Your task to perform on an android device: Search for vegetarian restaurants on Maps Image 0: 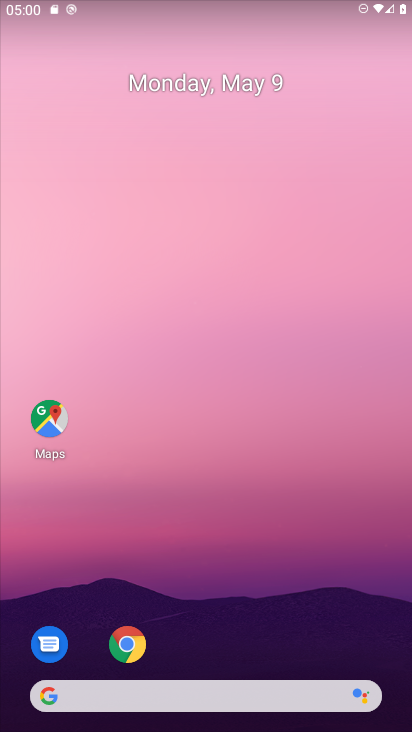
Step 0: click (49, 416)
Your task to perform on an android device: Search for vegetarian restaurants on Maps Image 1: 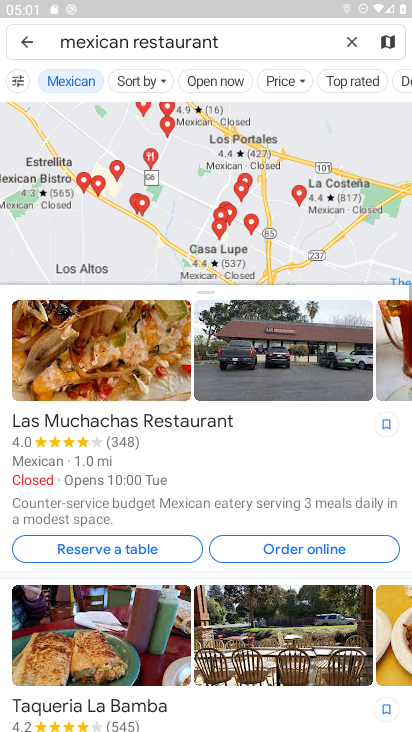
Step 1: click (351, 43)
Your task to perform on an android device: Search for vegetarian restaurants on Maps Image 2: 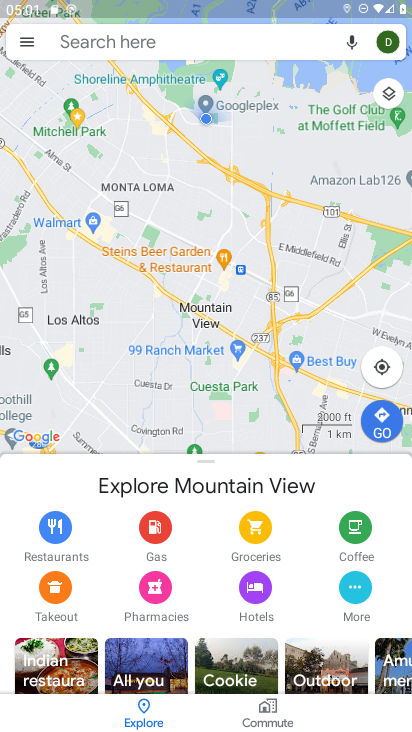
Step 2: click (277, 38)
Your task to perform on an android device: Search for vegetarian restaurants on Maps Image 3: 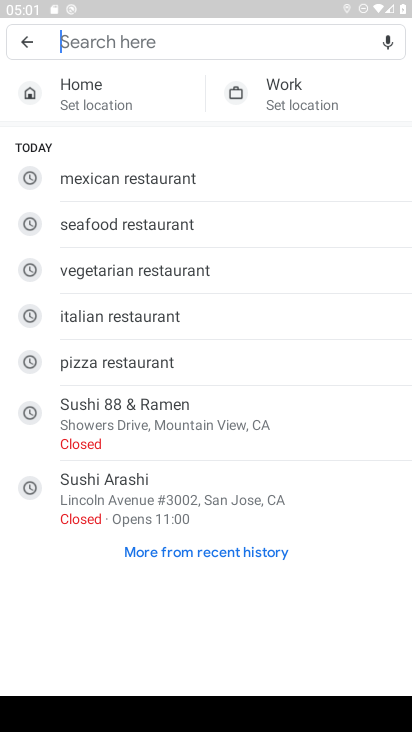
Step 3: type "vegetarian restaurants"
Your task to perform on an android device: Search for vegetarian restaurants on Maps Image 4: 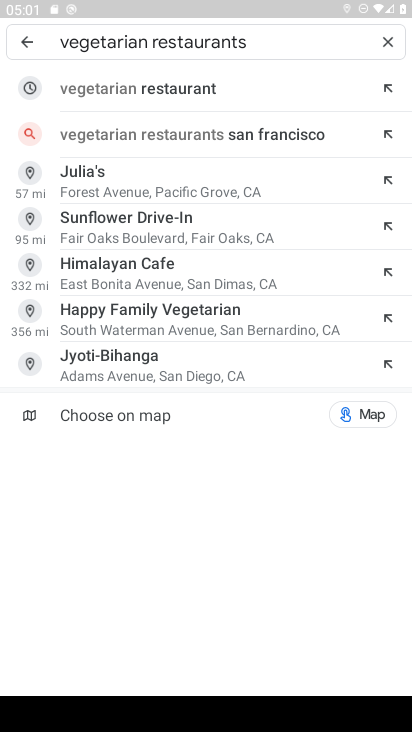
Step 4: click (207, 89)
Your task to perform on an android device: Search for vegetarian restaurants on Maps Image 5: 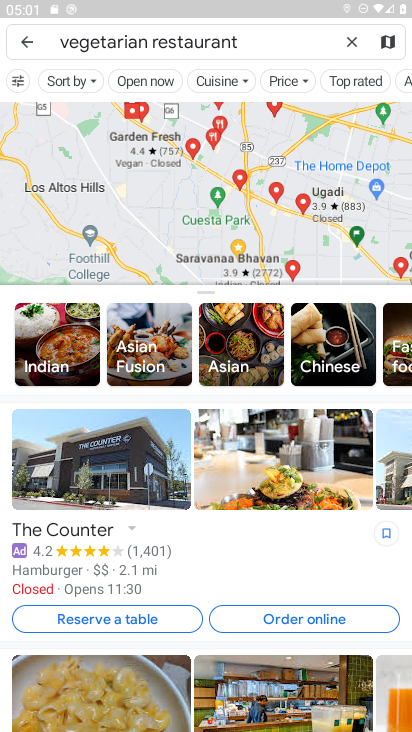
Step 5: task complete